Your task to perform on an android device: turn on priority inbox in the gmail app Image 0: 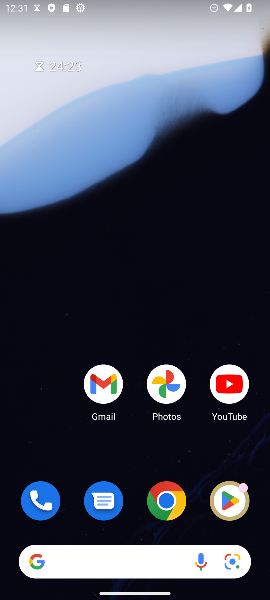
Step 0: click (110, 379)
Your task to perform on an android device: turn on priority inbox in the gmail app Image 1: 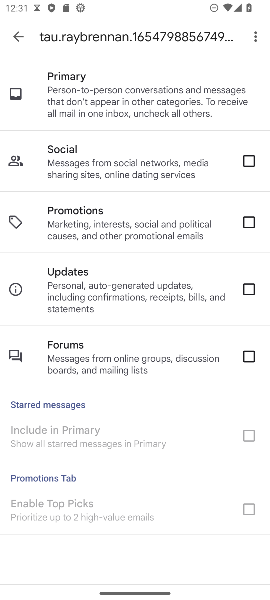
Step 1: click (25, 41)
Your task to perform on an android device: turn on priority inbox in the gmail app Image 2: 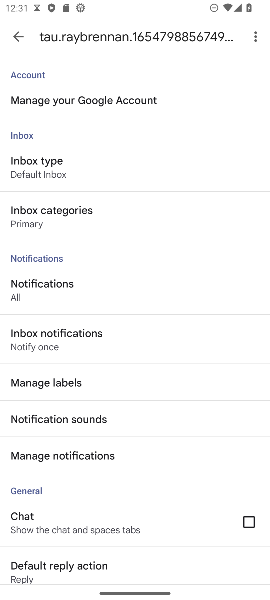
Step 2: click (51, 162)
Your task to perform on an android device: turn on priority inbox in the gmail app Image 3: 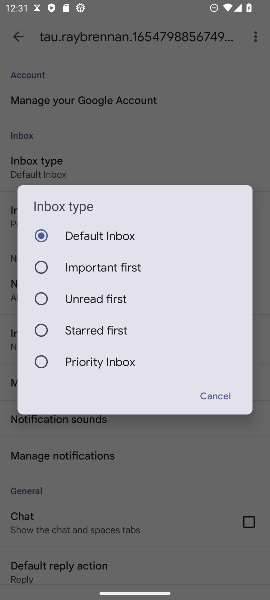
Step 3: click (45, 360)
Your task to perform on an android device: turn on priority inbox in the gmail app Image 4: 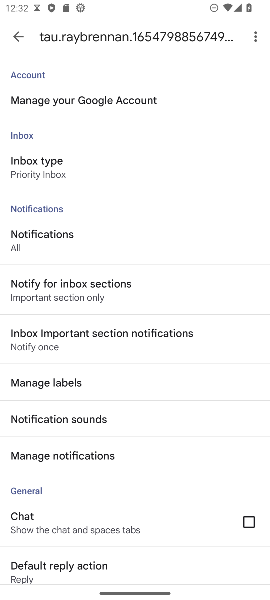
Step 4: task complete